Your task to perform on an android device: toggle translation in the chrome app Image 0: 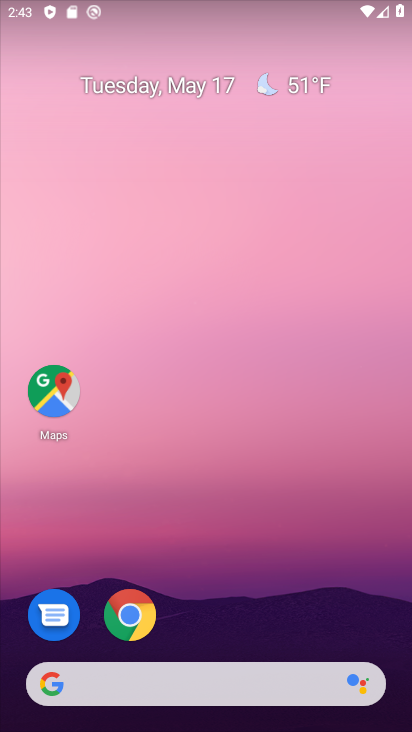
Step 0: press home button
Your task to perform on an android device: toggle translation in the chrome app Image 1: 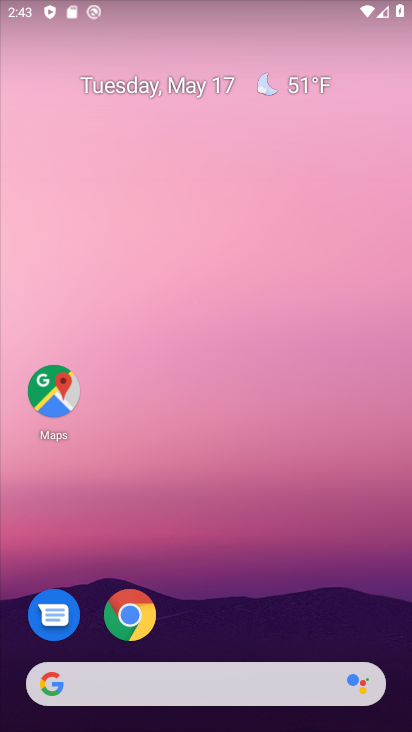
Step 1: click (128, 610)
Your task to perform on an android device: toggle translation in the chrome app Image 2: 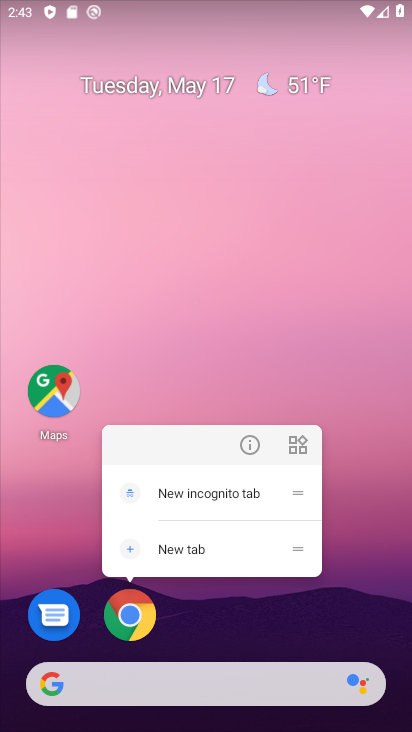
Step 2: click (125, 606)
Your task to perform on an android device: toggle translation in the chrome app Image 3: 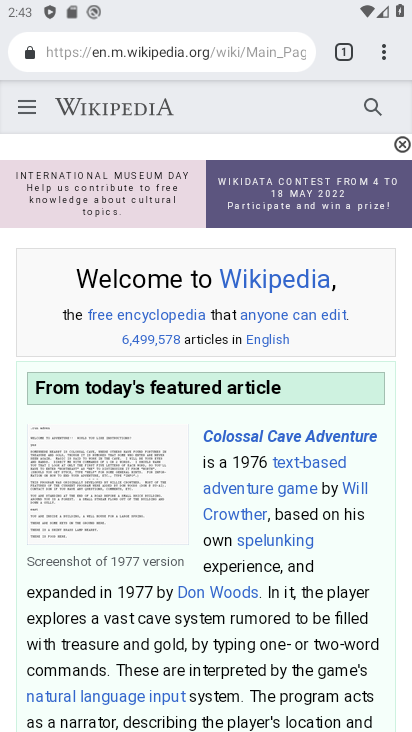
Step 3: click (388, 45)
Your task to perform on an android device: toggle translation in the chrome app Image 4: 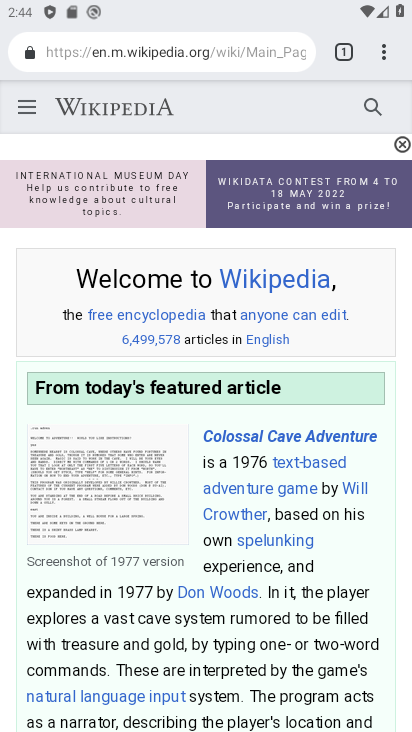
Step 4: click (386, 46)
Your task to perform on an android device: toggle translation in the chrome app Image 5: 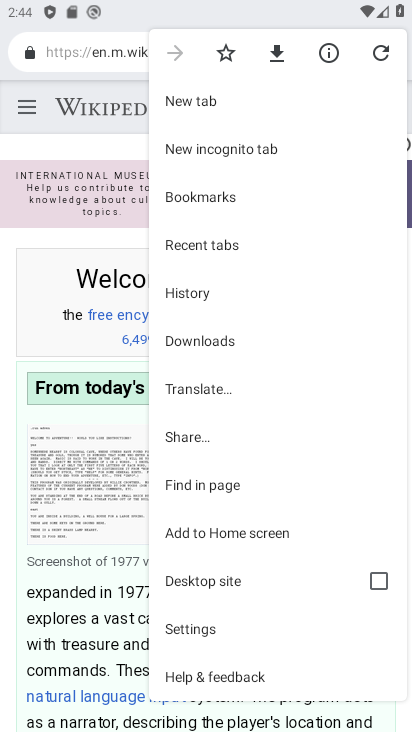
Step 5: click (222, 624)
Your task to perform on an android device: toggle translation in the chrome app Image 6: 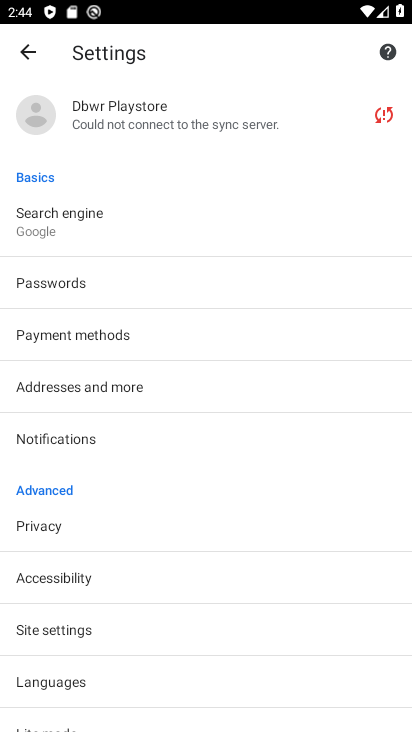
Step 6: click (102, 678)
Your task to perform on an android device: toggle translation in the chrome app Image 7: 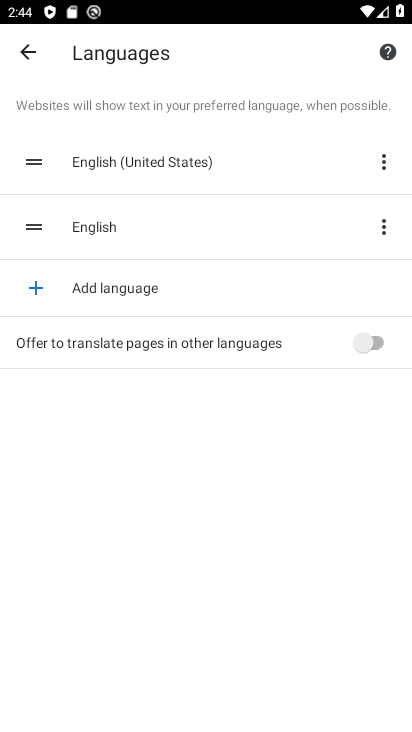
Step 7: click (370, 336)
Your task to perform on an android device: toggle translation in the chrome app Image 8: 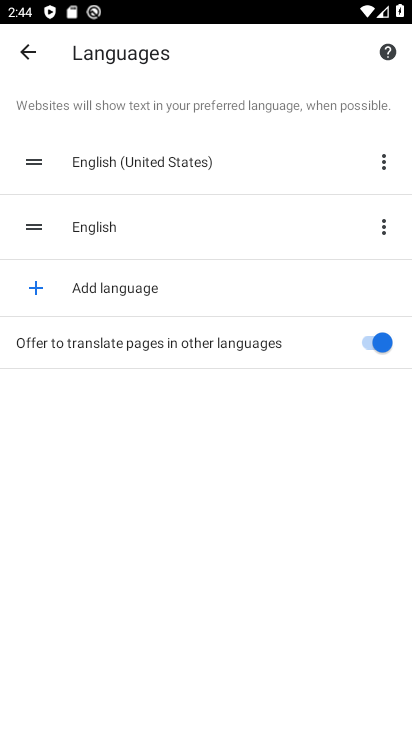
Step 8: task complete